Your task to perform on an android device: Open calendar and show me the fourth week of next month Image 0: 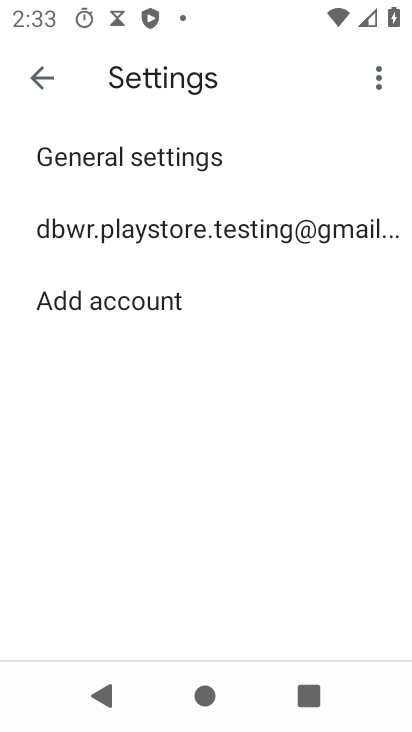
Step 0: press home button
Your task to perform on an android device: Open calendar and show me the fourth week of next month Image 1: 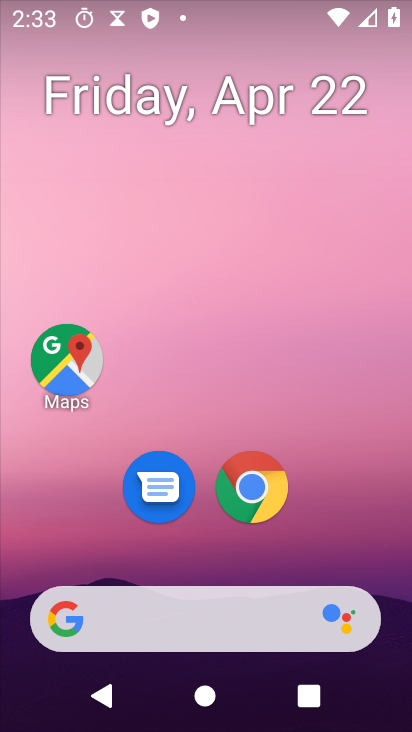
Step 1: drag from (185, 622) to (270, 210)
Your task to perform on an android device: Open calendar and show me the fourth week of next month Image 2: 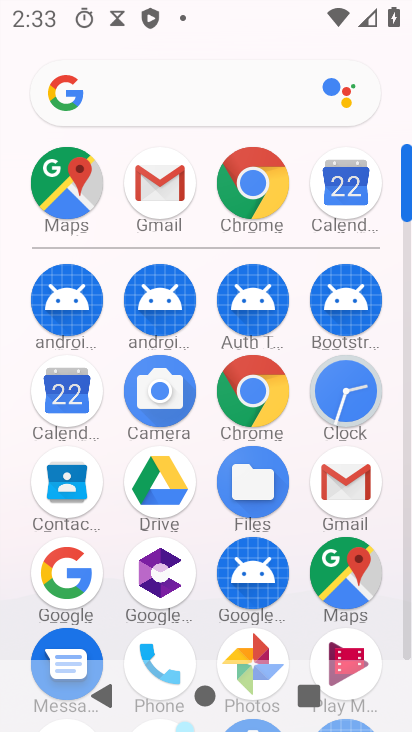
Step 2: click (63, 400)
Your task to perform on an android device: Open calendar and show me the fourth week of next month Image 3: 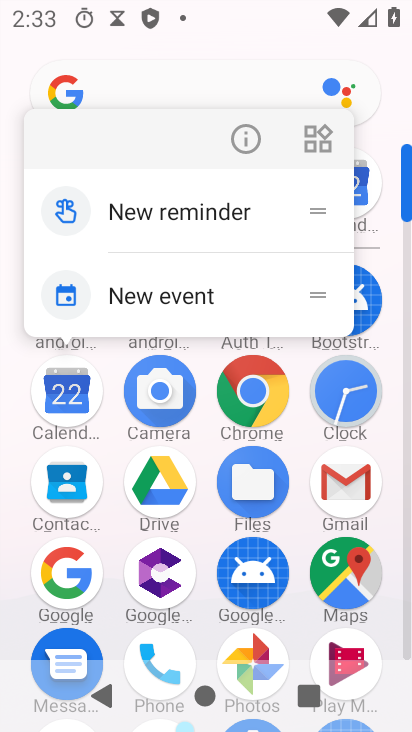
Step 3: click (60, 407)
Your task to perform on an android device: Open calendar and show me the fourth week of next month Image 4: 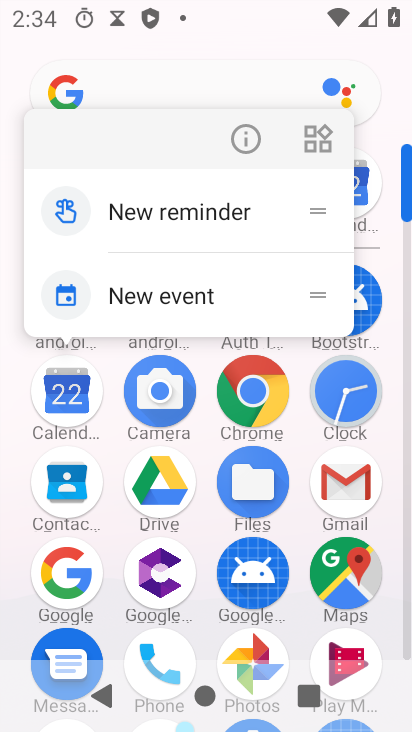
Step 4: click (68, 400)
Your task to perform on an android device: Open calendar and show me the fourth week of next month Image 5: 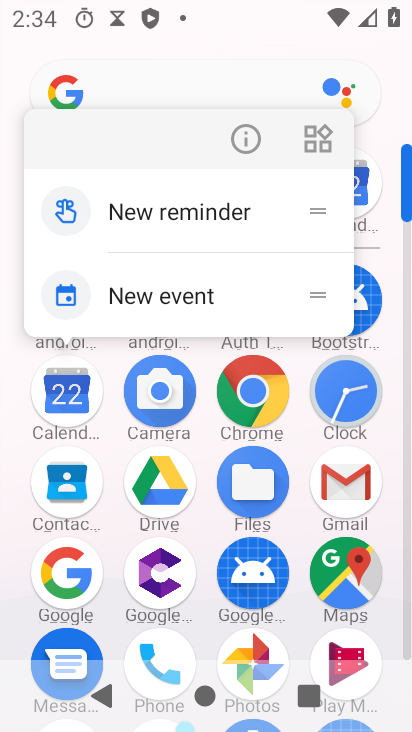
Step 5: click (68, 400)
Your task to perform on an android device: Open calendar and show me the fourth week of next month Image 6: 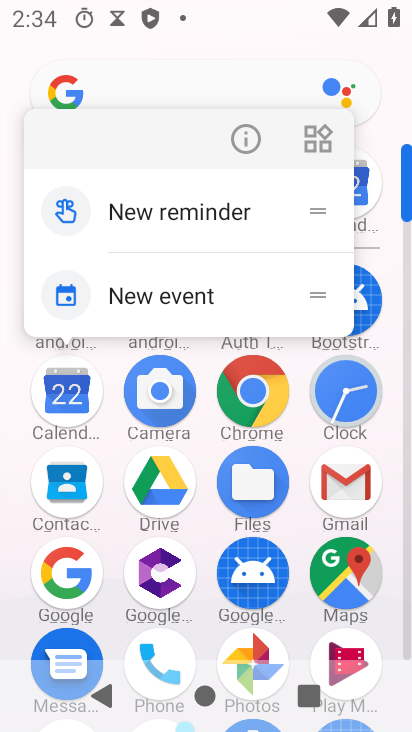
Step 6: click (75, 396)
Your task to perform on an android device: Open calendar and show me the fourth week of next month Image 7: 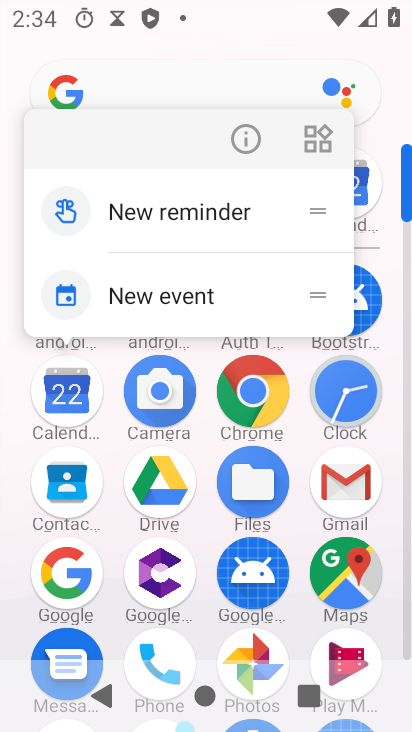
Step 7: click (72, 400)
Your task to perform on an android device: Open calendar and show me the fourth week of next month Image 8: 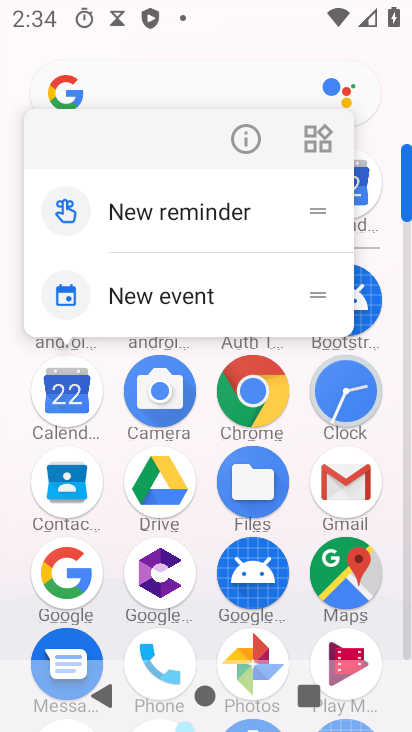
Step 8: click (73, 406)
Your task to perform on an android device: Open calendar and show me the fourth week of next month Image 9: 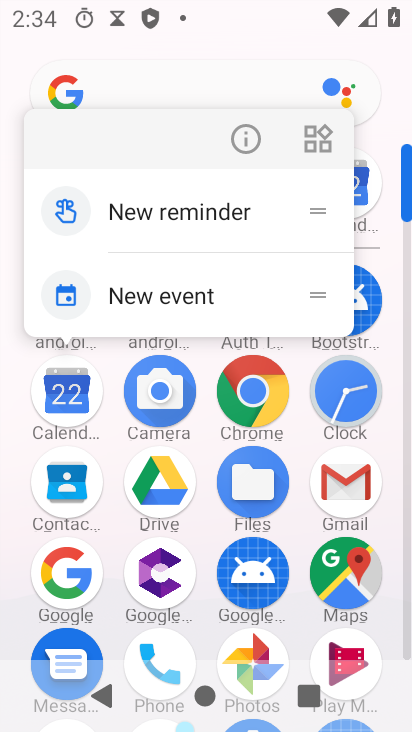
Step 9: click (73, 407)
Your task to perform on an android device: Open calendar and show me the fourth week of next month Image 10: 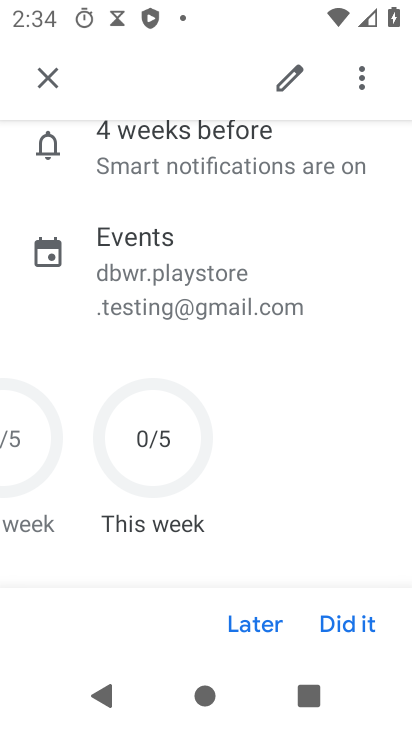
Step 10: click (51, 78)
Your task to perform on an android device: Open calendar and show me the fourth week of next month Image 11: 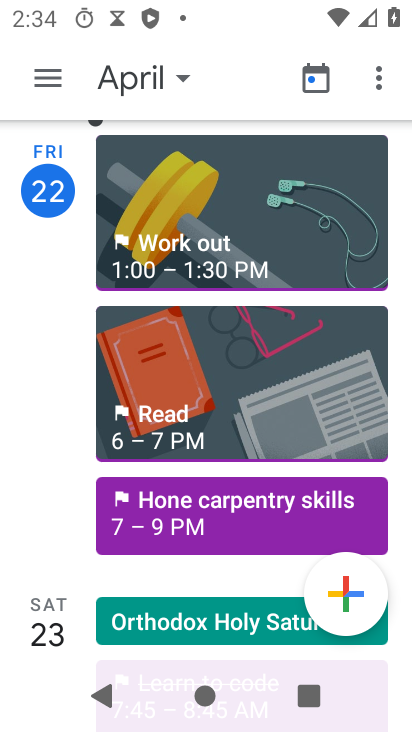
Step 11: click (149, 82)
Your task to perform on an android device: Open calendar and show me the fourth week of next month Image 12: 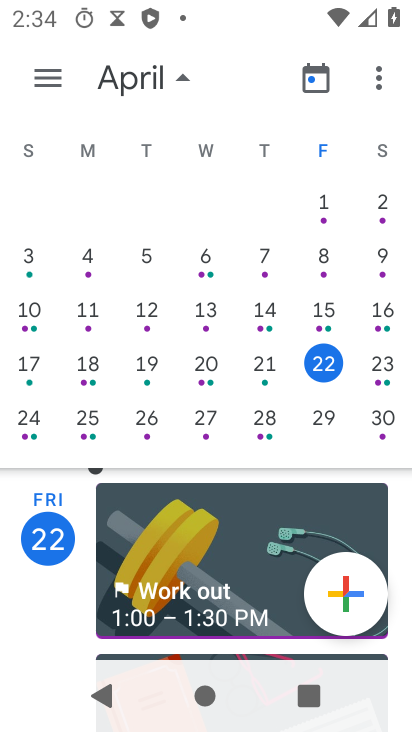
Step 12: drag from (311, 284) to (28, 235)
Your task to perform on an android device: Open calendar and show me the fourth week of next month Image 13: 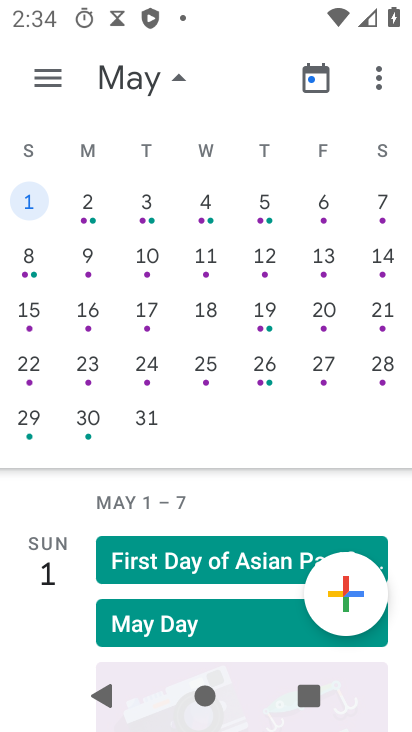
Step 13: click (35, 362)
Your task to perform on an android device: Open calendar and show me the fourth week of next month Image 14: 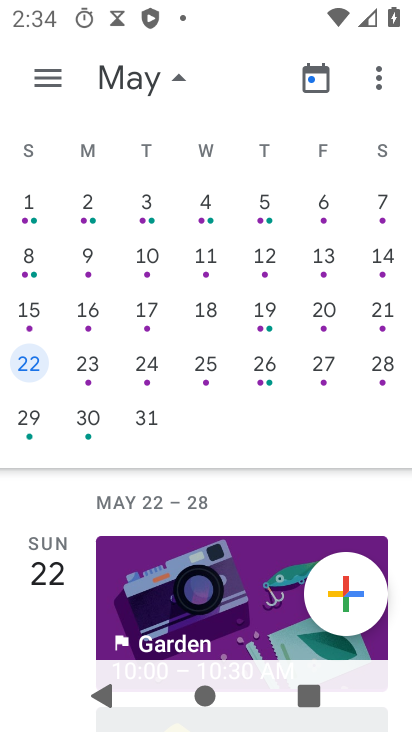
Step 14: click (48, 75)
Your task to perform on an android device: Open calendar and show me the fourth week of next month Image 15: 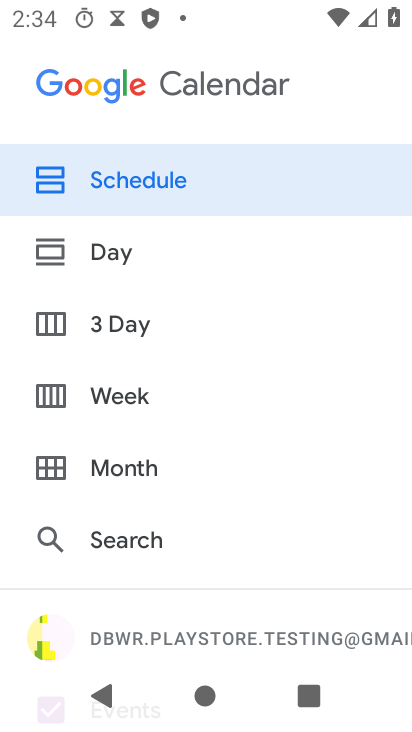
Step 15: click (124, 403)
Your task to perform on an android device: Open calendar and show me the fourth week of next month Image 16: 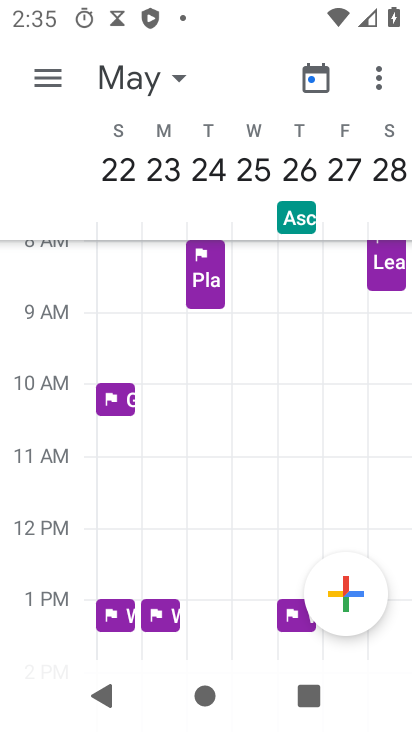
Step 16: task complete